Your task to perform on an android device: open wifi settings Image 0: 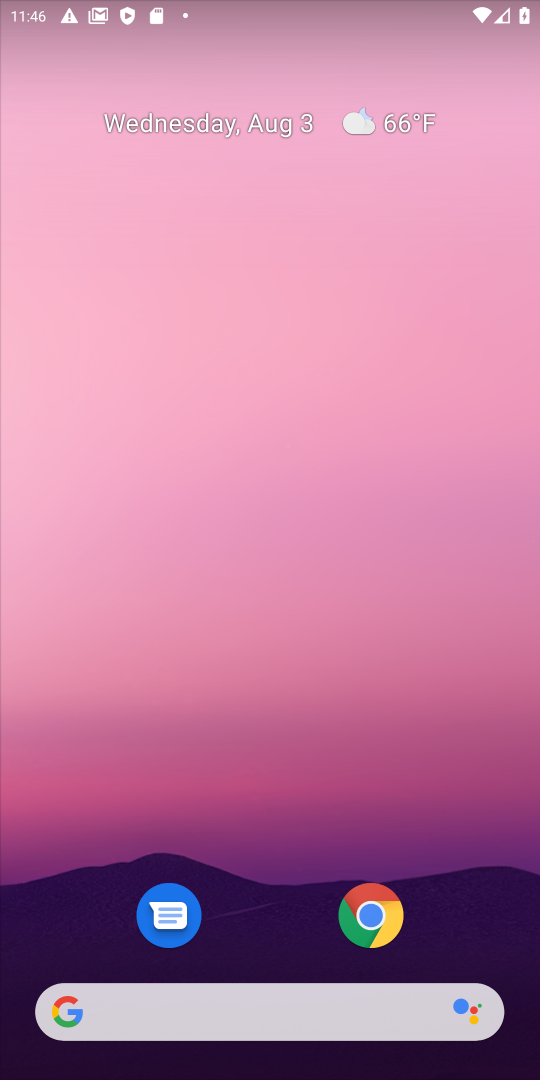
Step 0: drag from (249, 810) to (246, 233)
Your task to perform on an android device: open wifi settings Image 1: 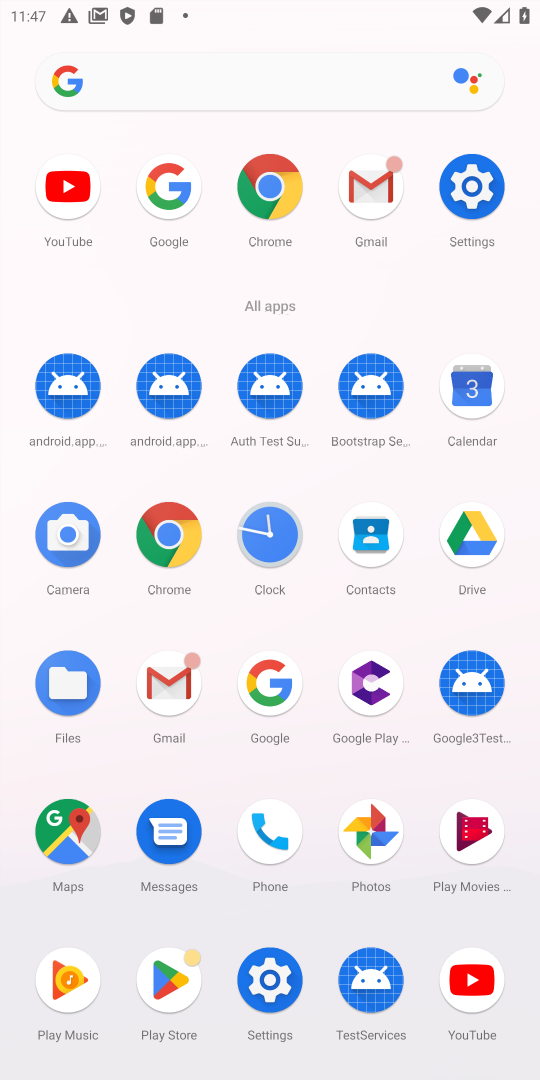
Step 1: click (268, 988)
Your task to perform on an android device: open wifi settings Image 2: 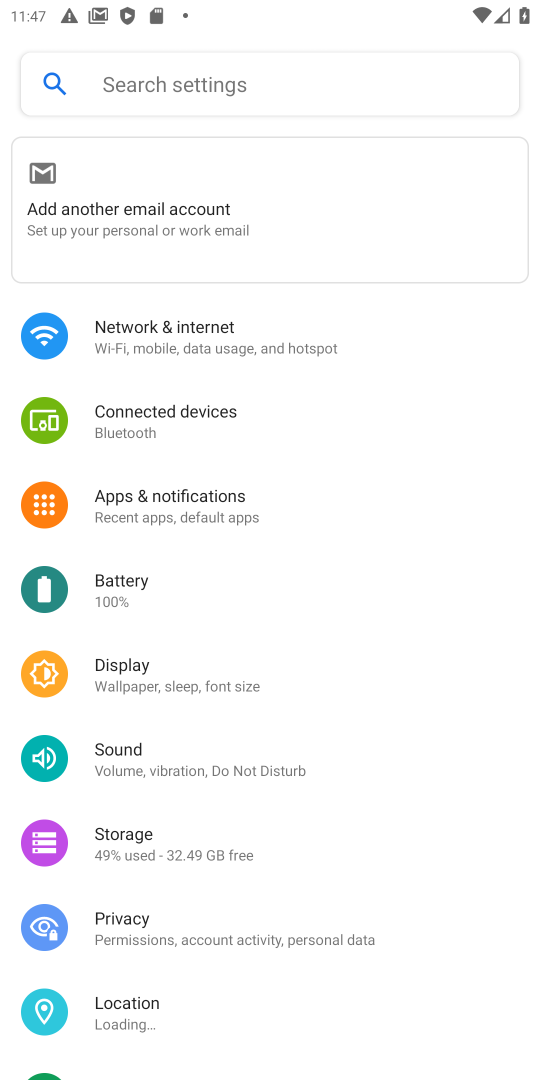
Step 2: click (149, 339)
Your task to perform on an android device: open wifi settings Image 3: 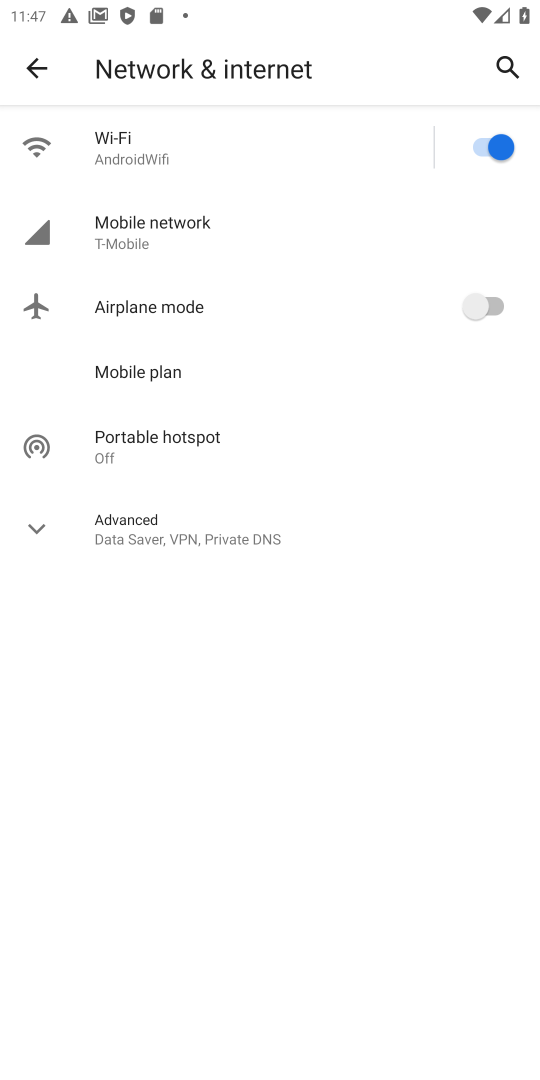
Step 3: click (207, 154)
Your task to perform on an android device: open wifi settings Image 4: 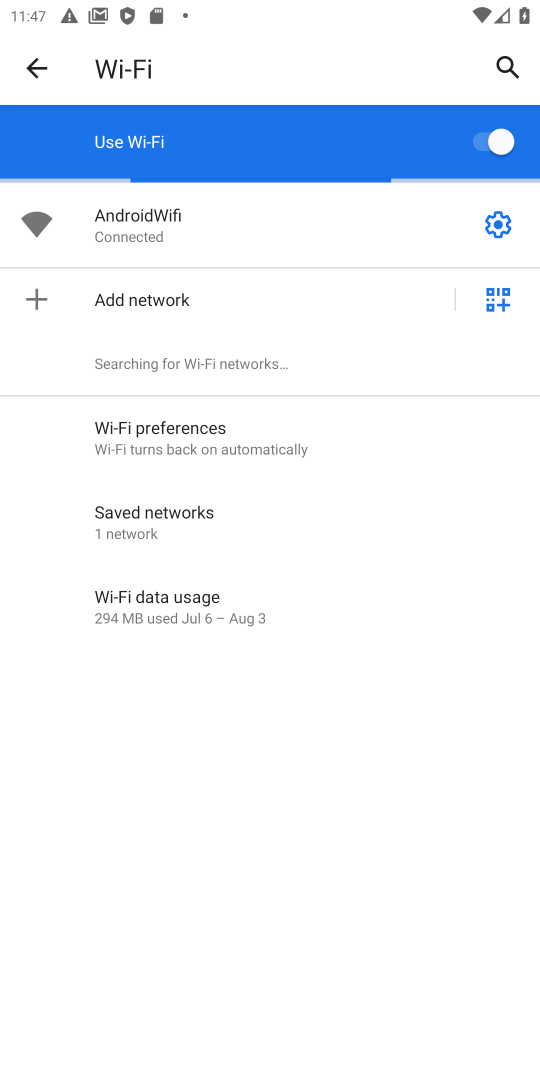
Step 4: task complete